Your task to perform on an android device: Open battery settings Image 0: 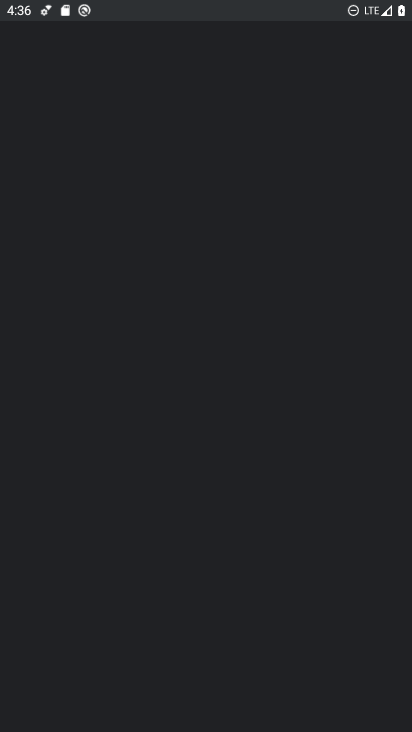
Step 0: drag from (290, 586) to (322, 138)
Your task to perform on an android device: Open battery settings Image 1: 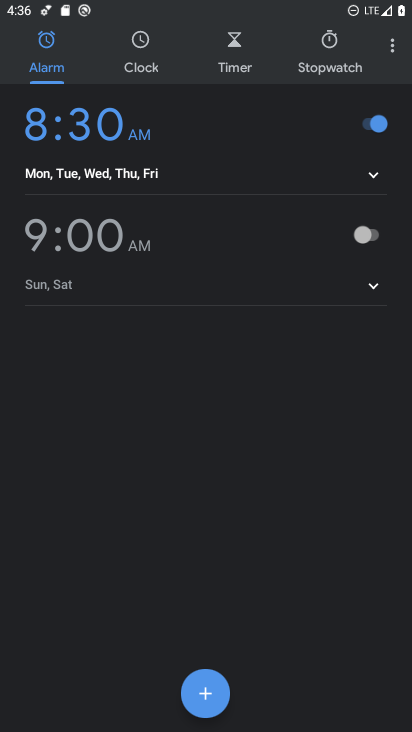
Step 1: press home button
Your task to perform on an android device: Open battery settings Image 2: 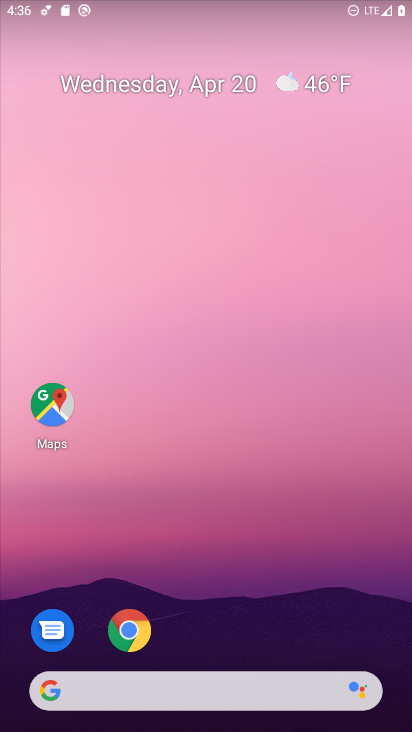
Step 2: drag from (268, 434) to (285, 103)
Your task to perform on an android device: Open battery settings Image 3: 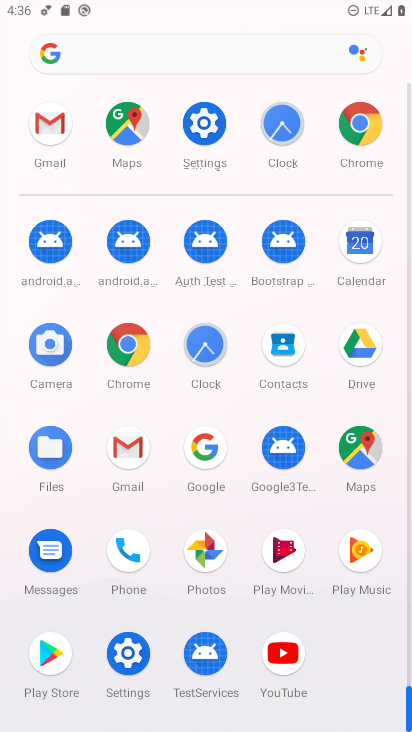
Step 3: click (138, 649)
Your task to perform on an android device: Open battery settings Image 4: 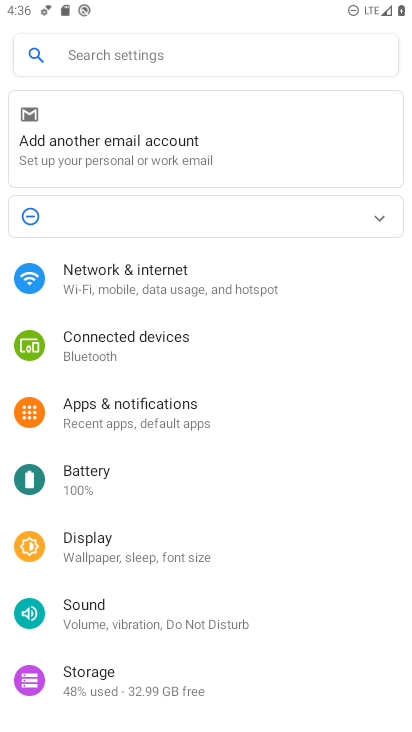
Step 4: click (149, 481)
Your task to perform on an android device: Open battery settings Image 5: 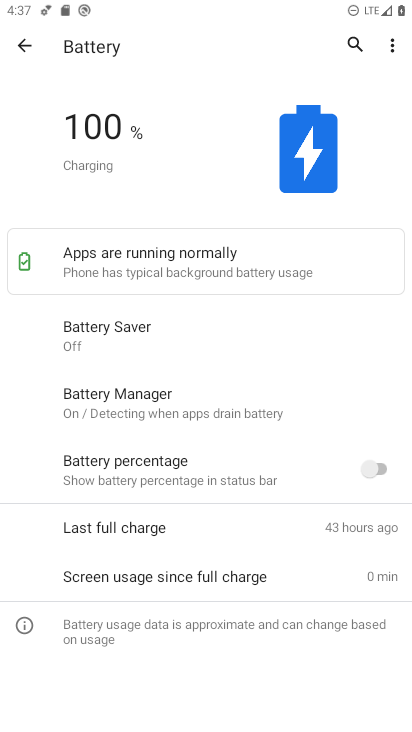
Step 5: task complete